Your task to perform on an android device: open app "TextNow: Call + Text Unlimited" (install if not already installed) and enter user name: "stoke@yahoo.com" and password: "prompted" Image 0: 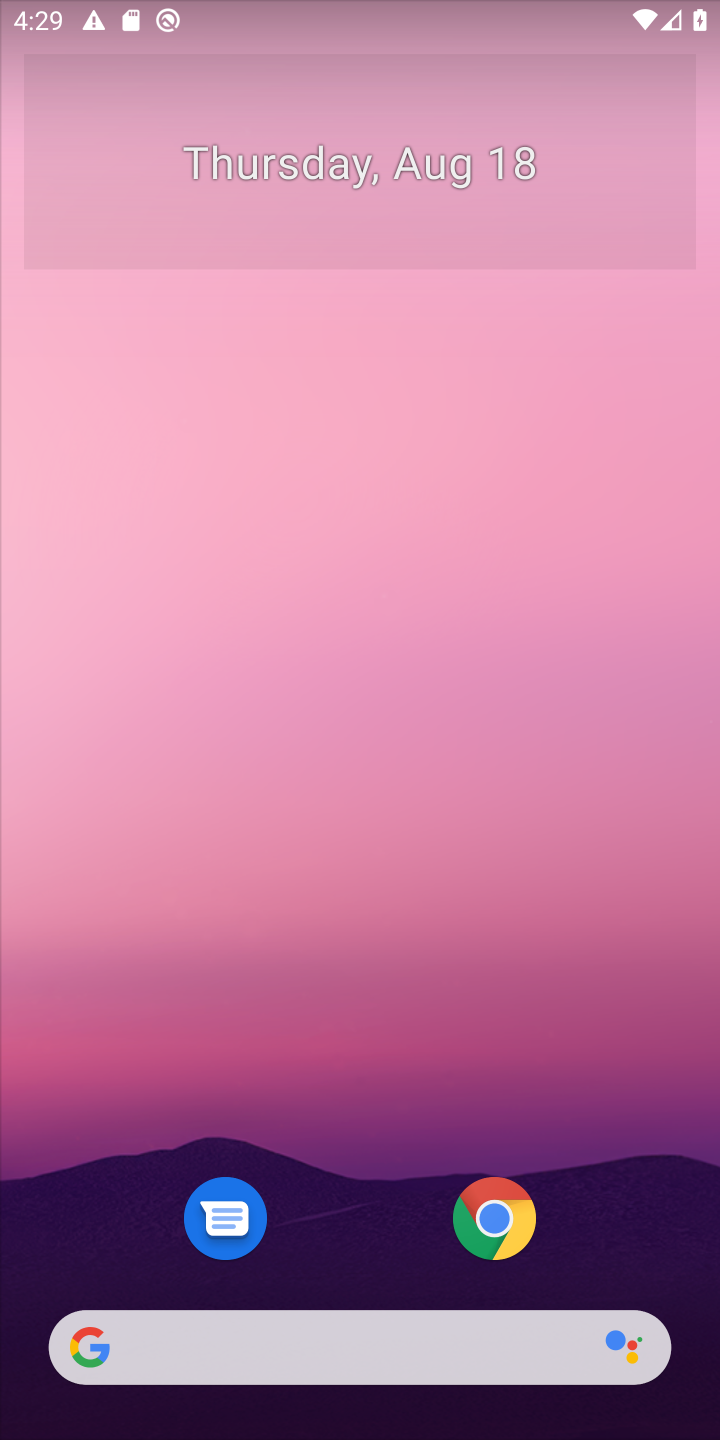
Step 0: drag from (379, 899) to (376, 322)
Your task to perform on an android device: open app "TextNow: Call + Text Unlimited" (install if not already installed) and enter user name: "stoke@yahoo.com" and password: "prompted" Image 1: 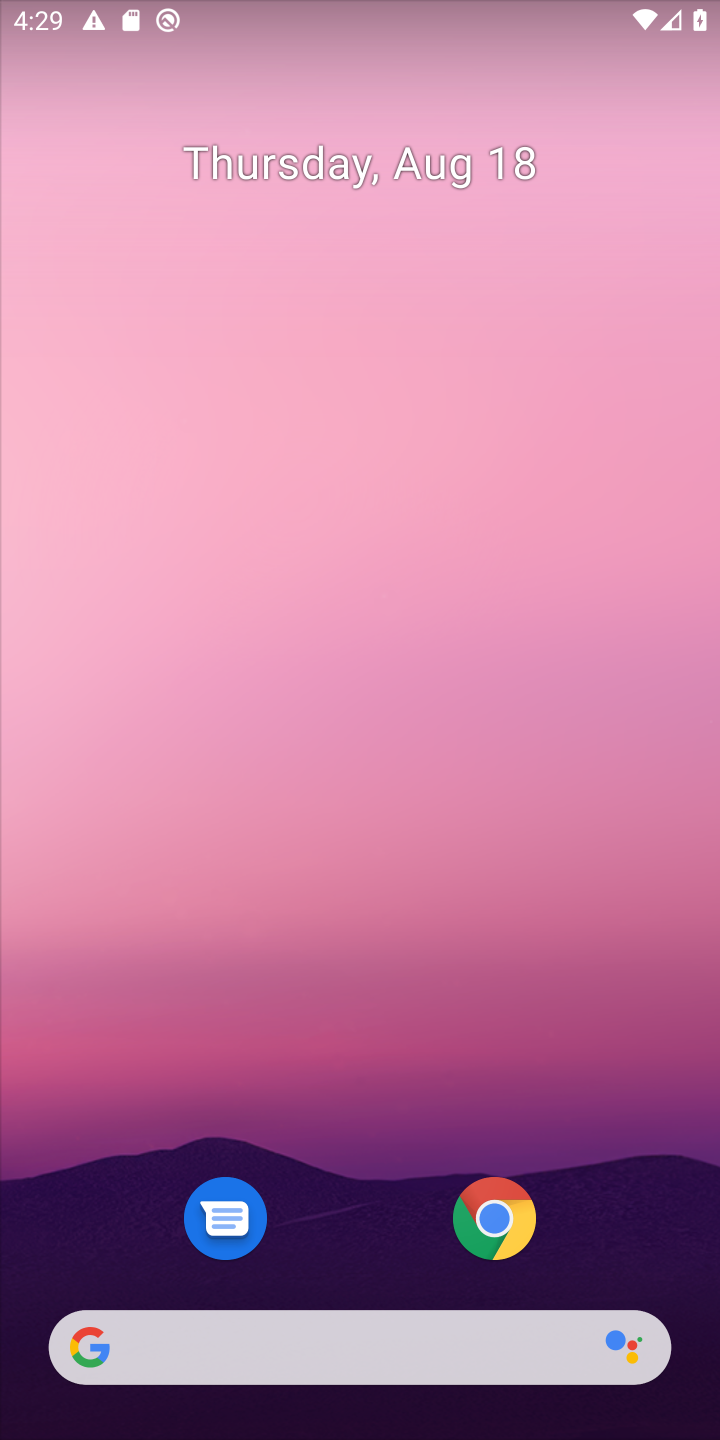
Step 1: drag from (330, 1107) to (428, 294)
Your task to perform on an android device: open app "TextNow: Call + Text Unlimited" (install if not already installed) and enter user name: "stoke@yahoo.com" and password: "prompted" Image 2: 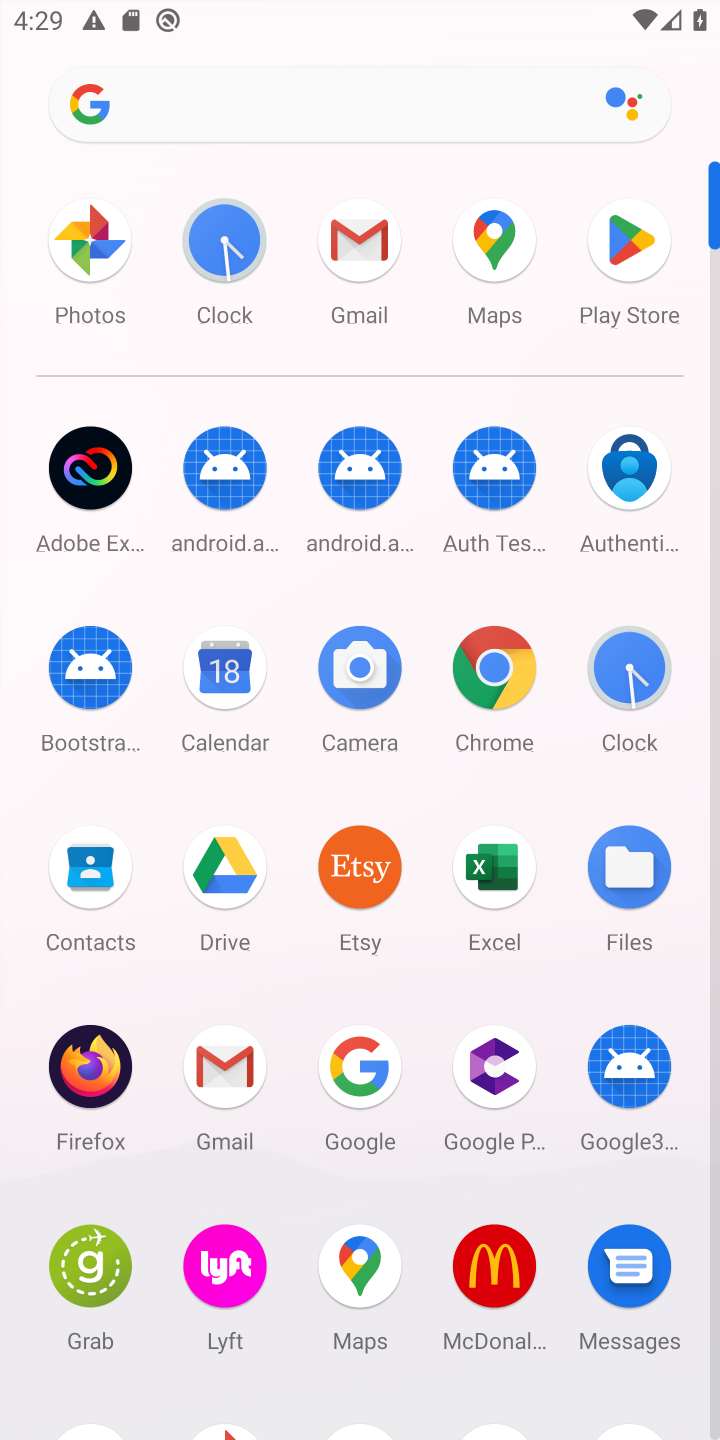
Step 2: click (611, 246)
Your task to perform on an android device: open app "TextNow: Call + Text Unlimited" (install if not already installed) and enter user name: "stoke@yahoo.com" and password: "prompted" Image 3: 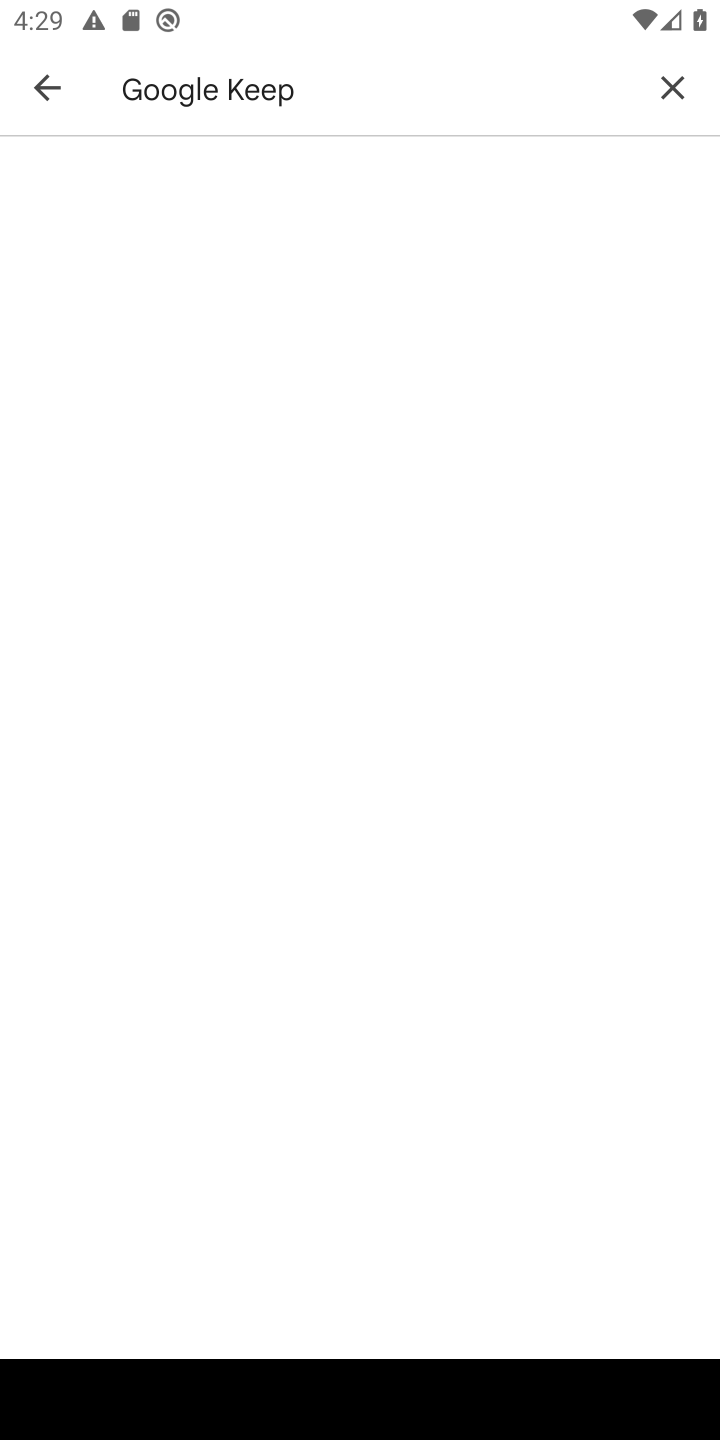
Step 3: click (677, 85)
Your task to perform on an android device: open app "TextNow: Call + Text Unlimited" (install if not already installed) and enter user name: "stoke@yahoo.com" and password: "prompted" Image 4: 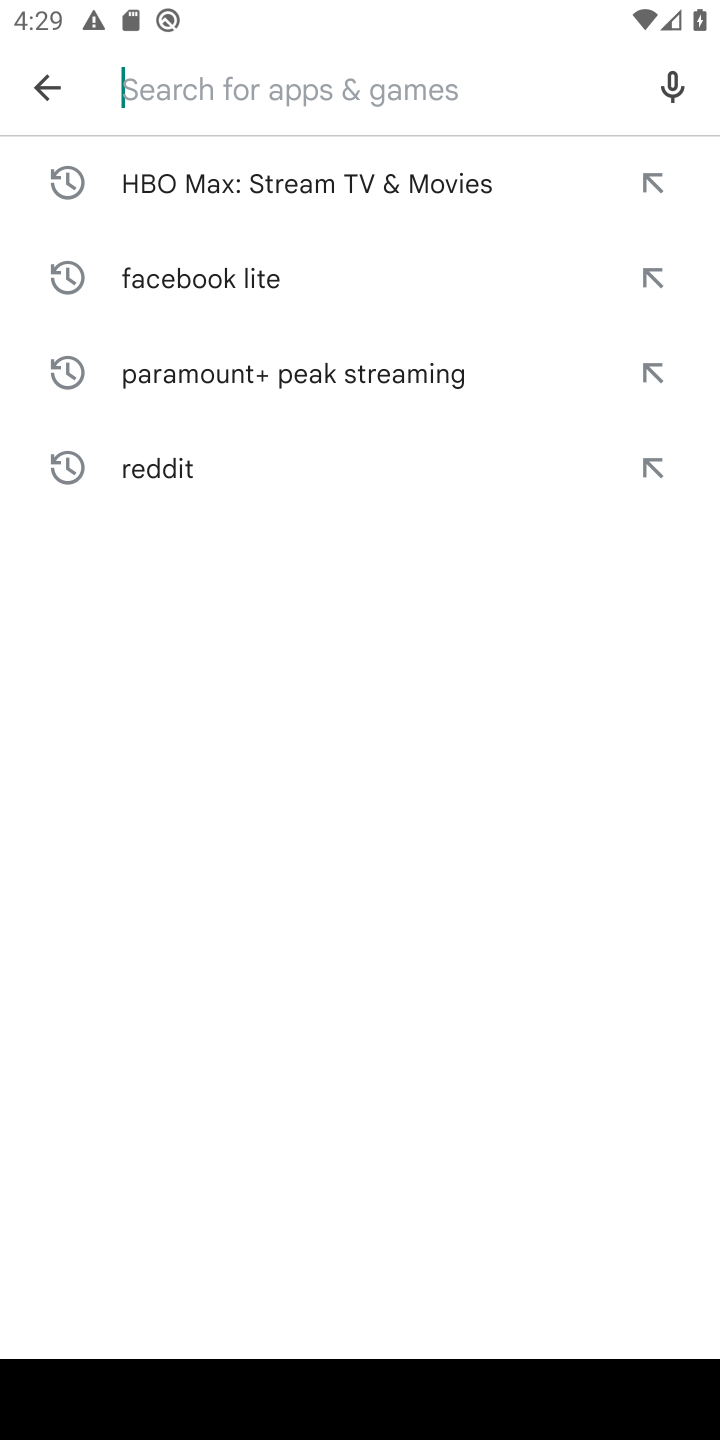
Step 4: type "TextNow: Call + Text Unlimited"
Your task to perform on an android device: open app "TextNow: Call + Text Unlimited" (install if not already installed) and enter user name: "stoke@yahoo.com" and password: "prompted" Image 5: 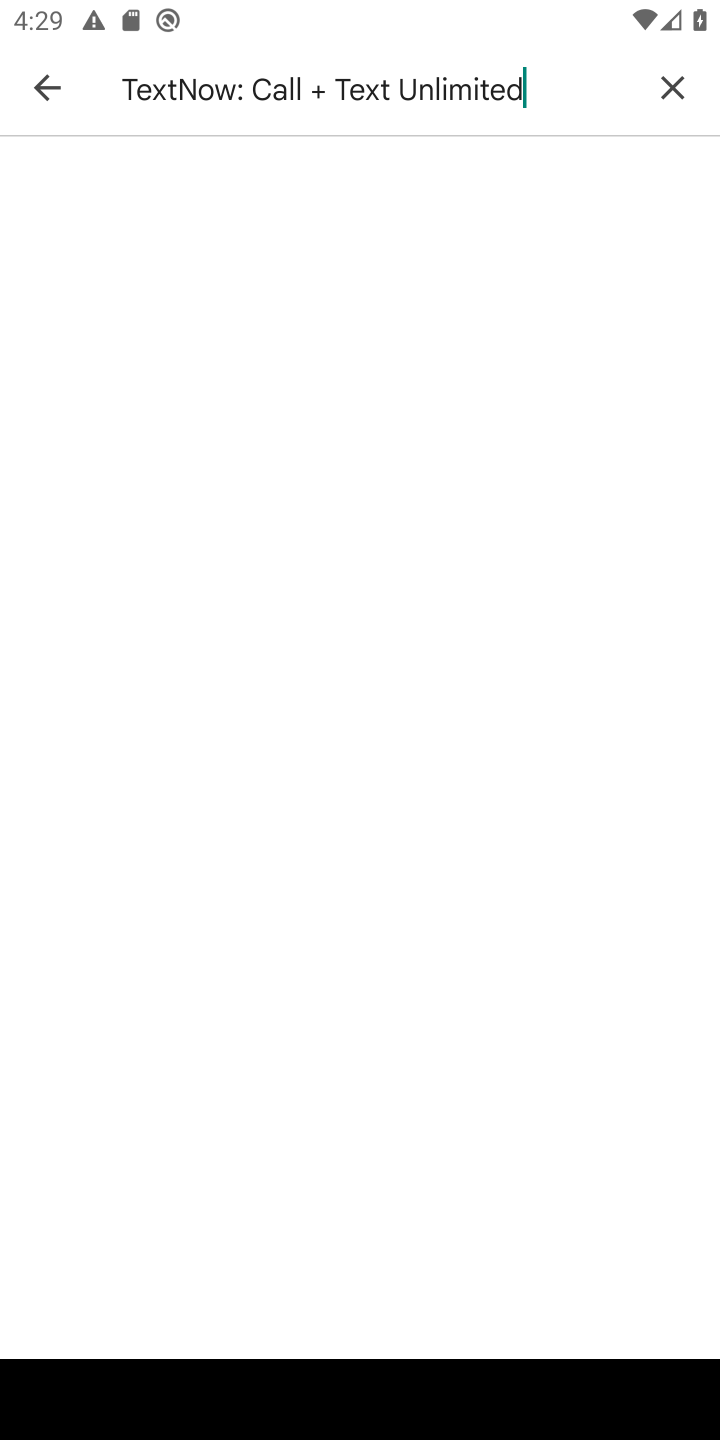
Step 5: task complete